Your task to perform on an android device: set an alarm Image 0: 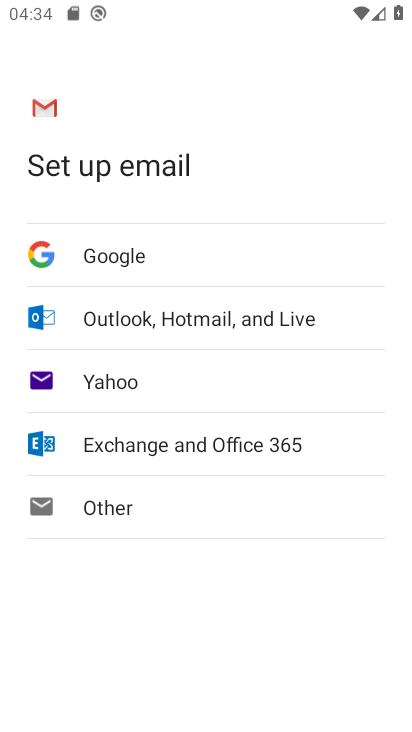
Step 0: press home button
Your task to perform on an android device: set an alarm Image 1: 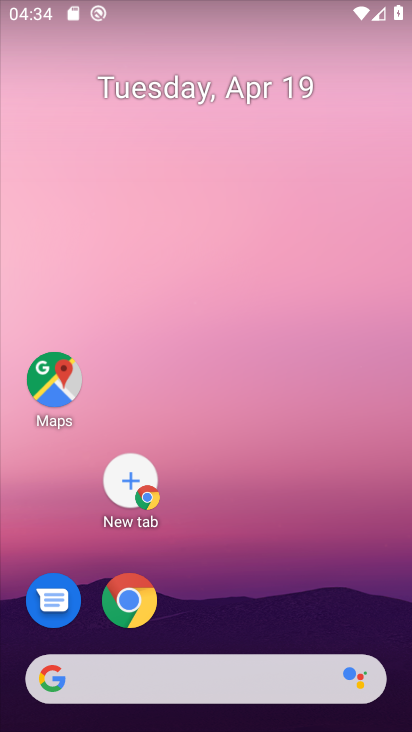
Step 1: drag from (280, 590) to (259, 42)
Your task to perform on an android device: set an alarm Image 2: 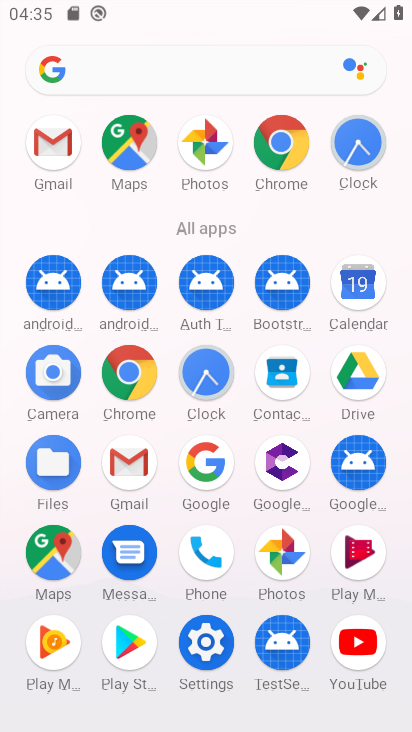
Step 2: click (367, 145)
Your task to perform on an android device: set an alarm Image 3: 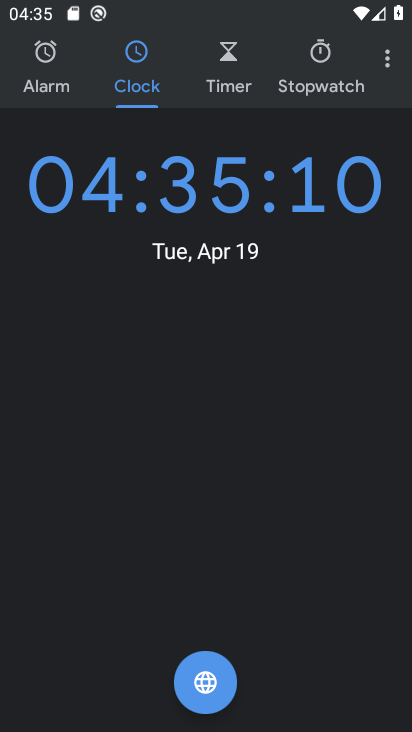
Step 3: click (72, 65)
Your task to perform on an android device: set an alarm Image 4: 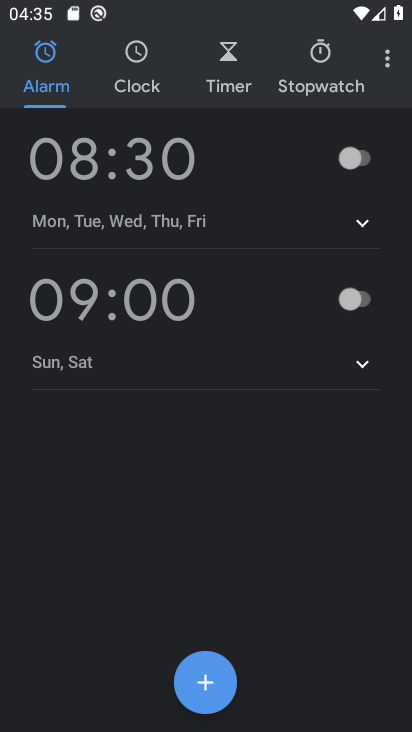
Step 4: click (361, 298)
Your task to perform on an android device: set an alarm Image 5: 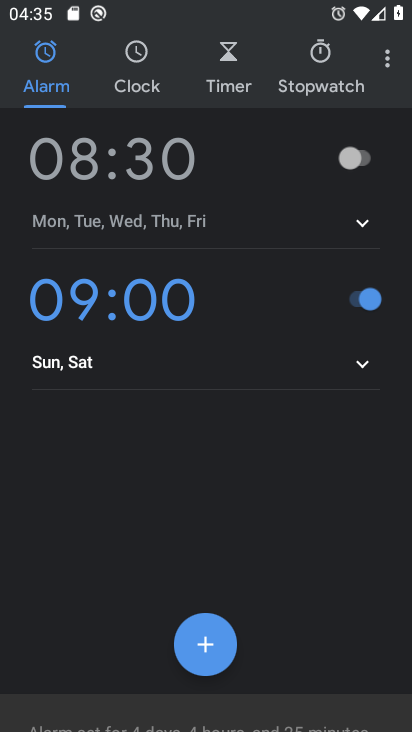
Step 5: task complete